Your task to perform on an android device: turn on improve location accuracy Image 0: 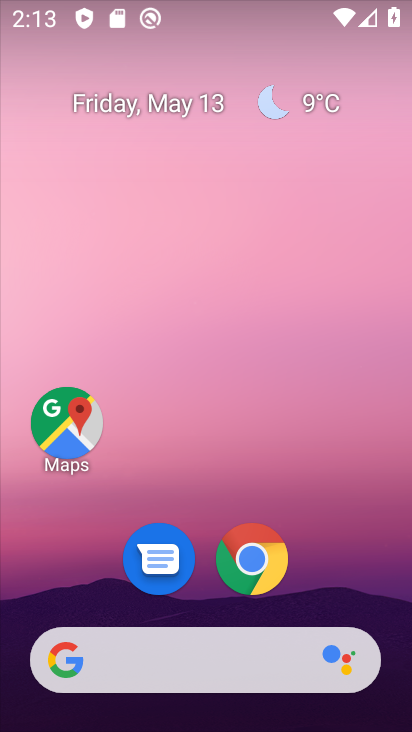
Step 0: drag from (307, 14) to (256, 13)
Your task to perform on an android device: turn on improve location accuracy Image 1: 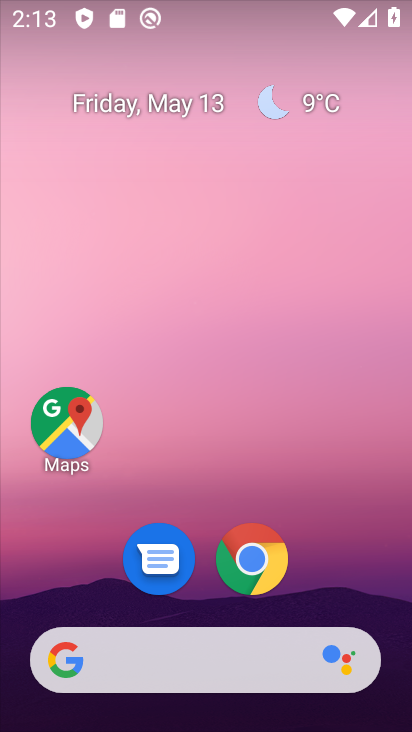
Step 1: drag from (310, 580) to (285, 5)
Your task to perform on an android device: turn on improve location accuracy Image 2: 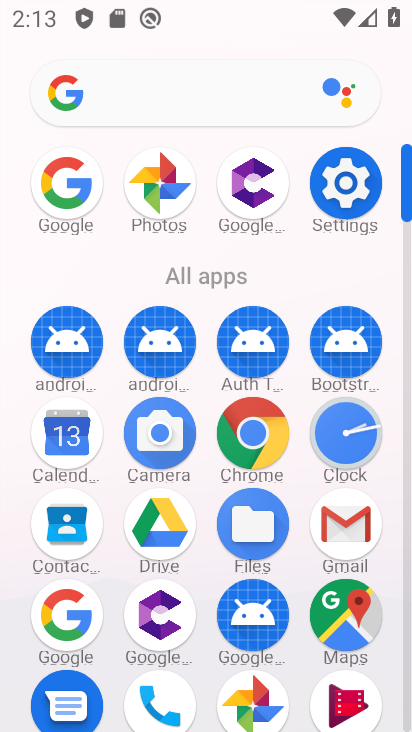
Step 2: click (358, 188)
Your task to perform on an android device: turn on improve location accuracy Image 3: 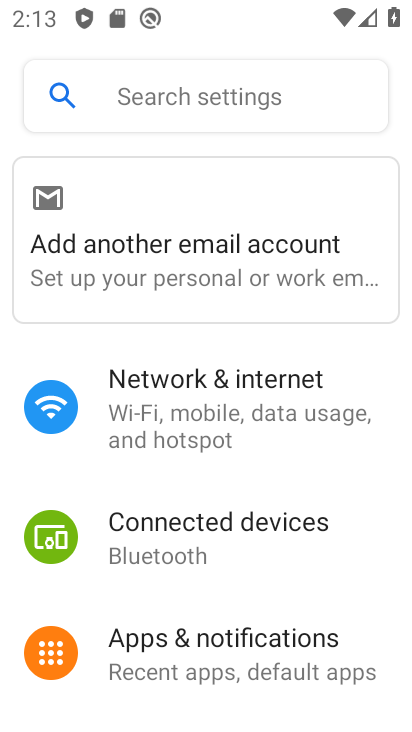
Step 3: drag from (223, 610) to (254, 200)
Your task to perform on an android device: turn on improve location accuracy Image 4: 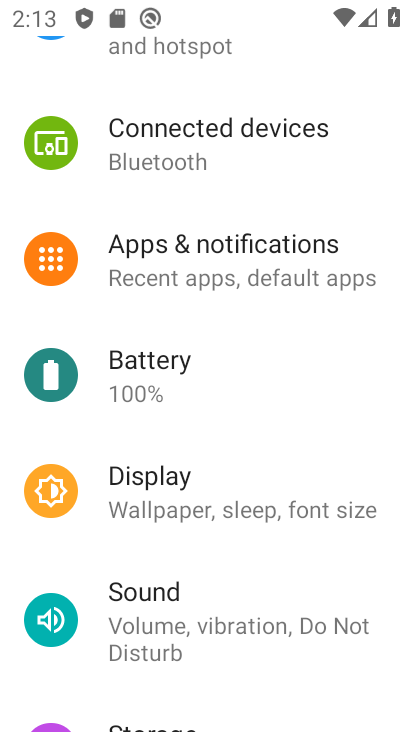
Step 4: drag from (209, 686) to (235, 361)
Your task to perform on an android device: turn on improve location accuracy Image 5: 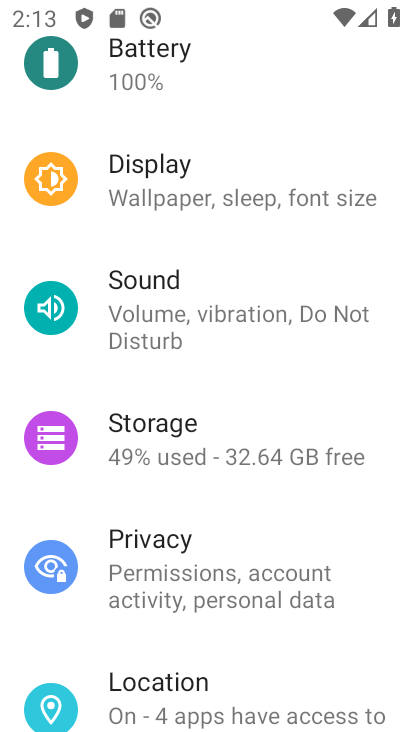
Step 5: click (173, 699)
Your task to perform on an android device: turn on improve location accuracy Image 6: 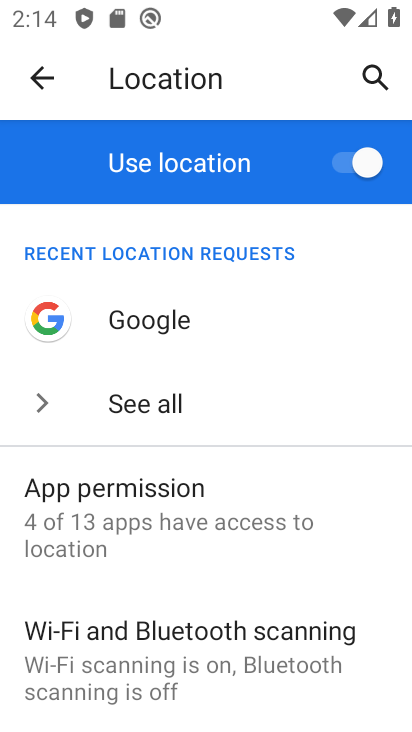
Step 6: drag from (198, 683) to (236, 349)
Your task to perform on an android device: turn on improve location accuracy Image 7: 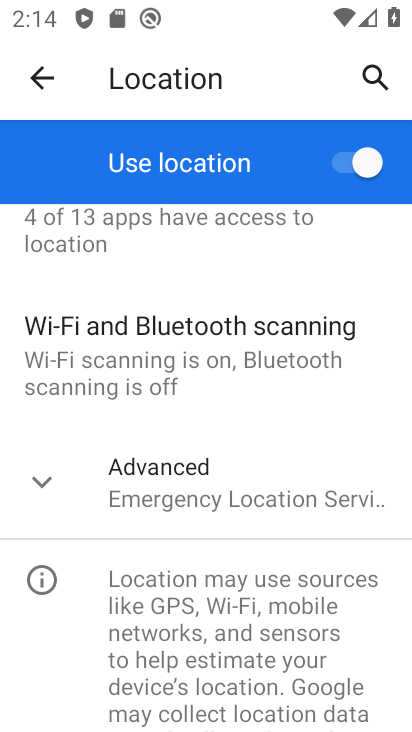
Step 7: click (192, 493)
Your task to perform on an android device: turn on improve location accuracy Image 8: 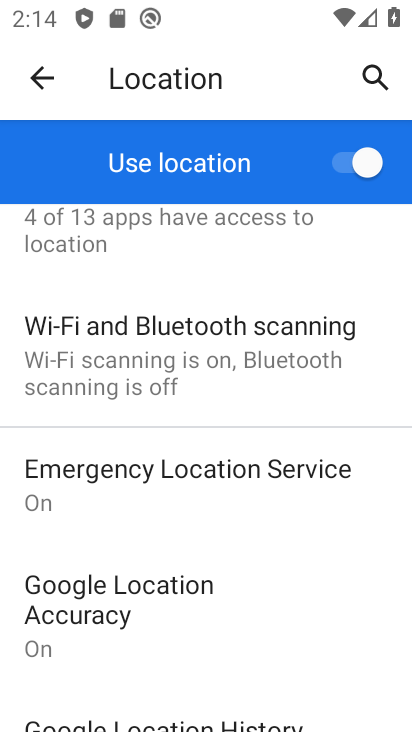
Step 8: click (231, 374)
Your task to perform on an android device: turn on improve location accuracy Image 9: 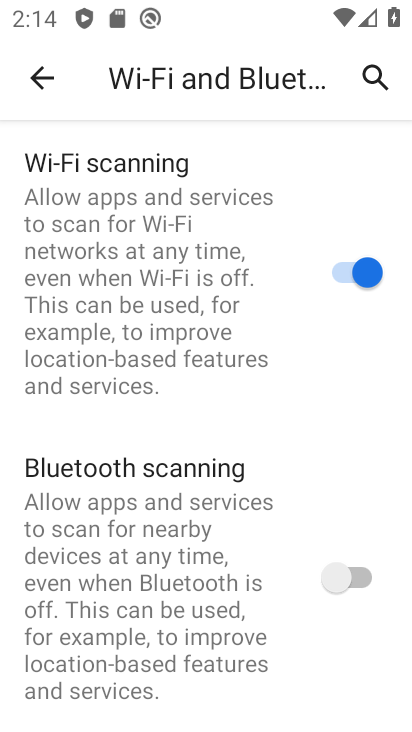
Step 9: press back button
Your task to perform on an android device: turn on improve location accuracy Image 10: 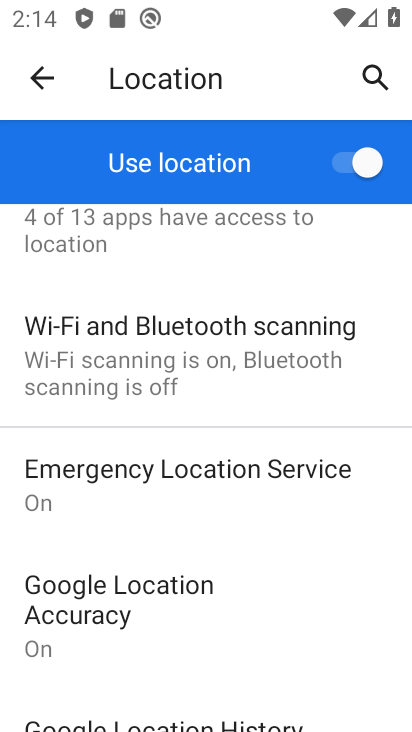
Step 10: drag from (217, 642) to (218, 412)
Your task to perform on an android device: turn on improve location accuracy Image 11: 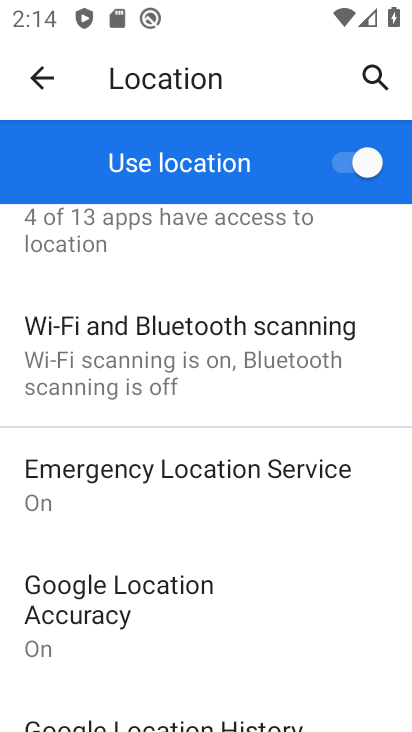
Step 11: drag from (225, 674) to (225, 367)
Your task to perform on an android device: turn on improve location accuracy Image 12: 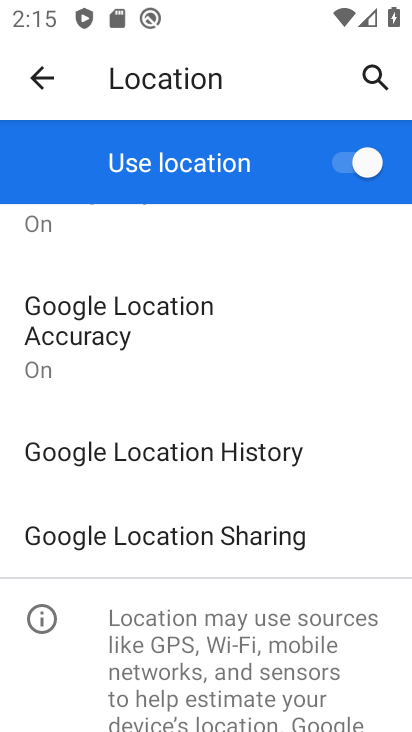
Step 12: click (125, 338)
Your task to perform on an android device: turn on improve location accuracy Image 13: 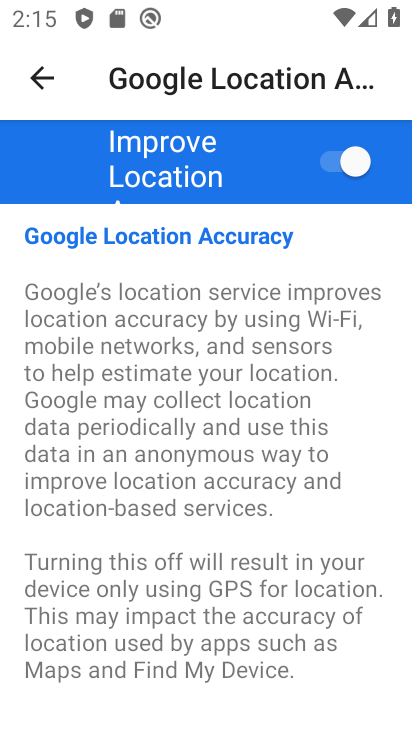
Step 13: task complete